Your task to perform on an android device: refresh tabs in the chrome app Image 0: 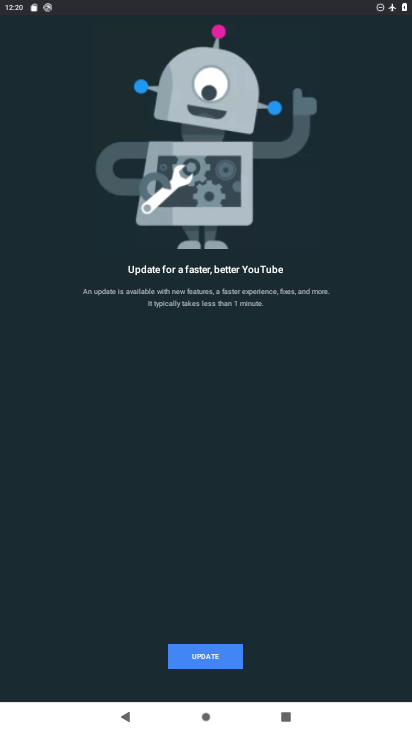
Step 0: drag from (186, 630) to (241, 206)
Your task to perform on an android device: refresh tabs in the chrome app Image 1: 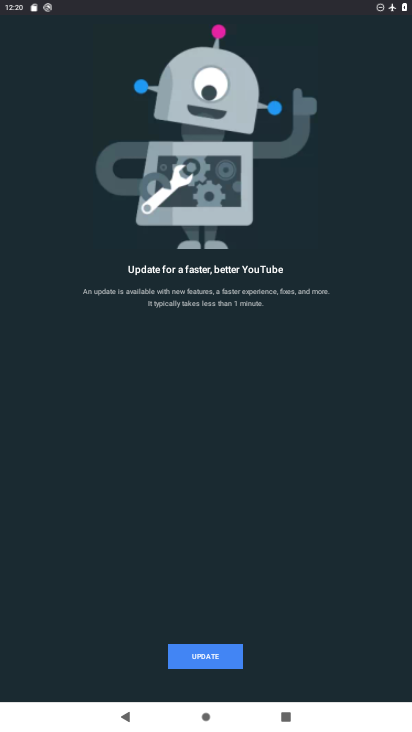
Step 1: press home button
Your task to perform on an android device: refresh tabs in the chrome app Image 2: 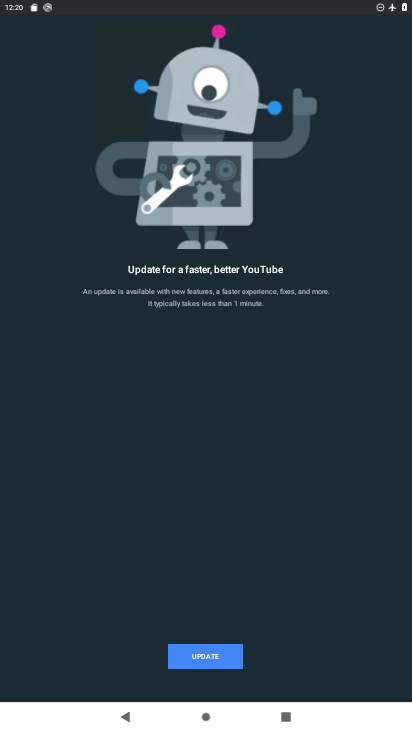
Step 2: press home button
Your task to perform on an android device: refresh tabs in the chrome app Image 3: 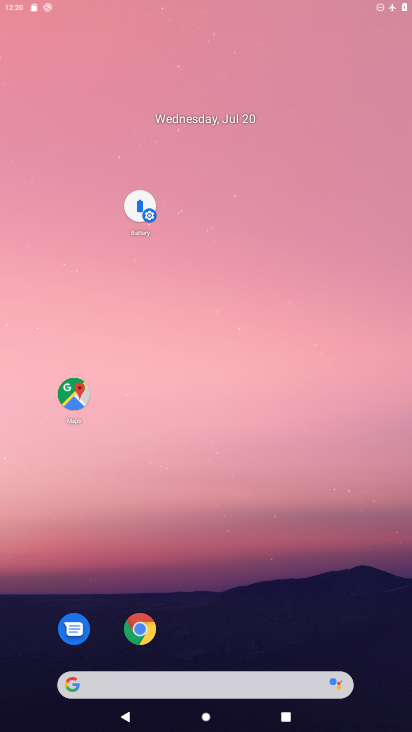
Step 3: press home button
Your task to perform on an android device: refresh tabs in the chrome app Image 4: 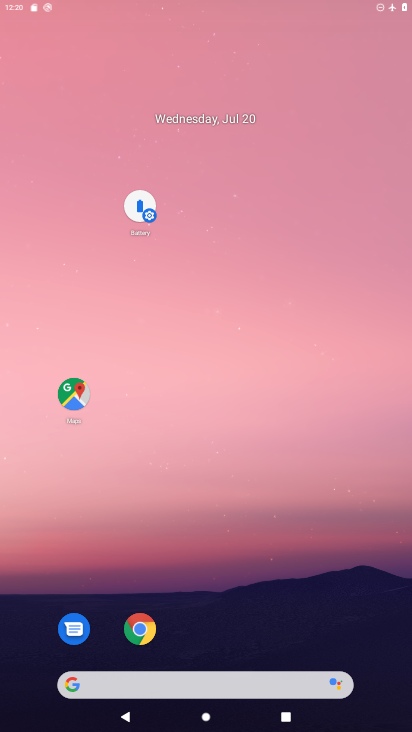
Step 4: click (236, 158)
Your task to perform on an android device: refresh tabs in the chrome app Image 5: 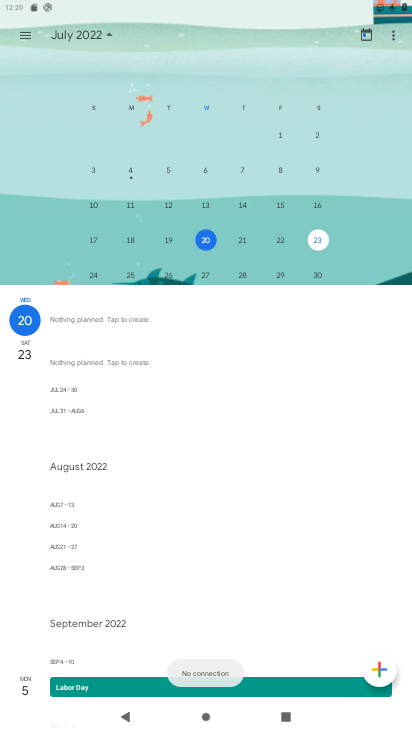
Step 5: drag from (198, 648) to (238, 270)
Your task to perform on an android device: refresh tabs in the chrome app Image 6: 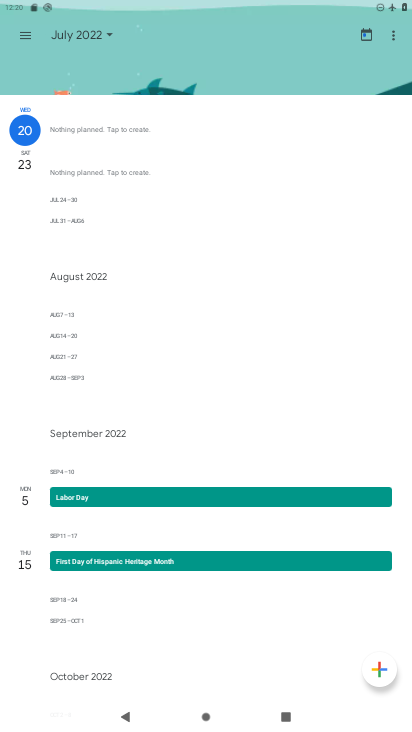
Step 6: press home button
Your task to perform on an android device: refresh tabs in the chrome app Image 7: 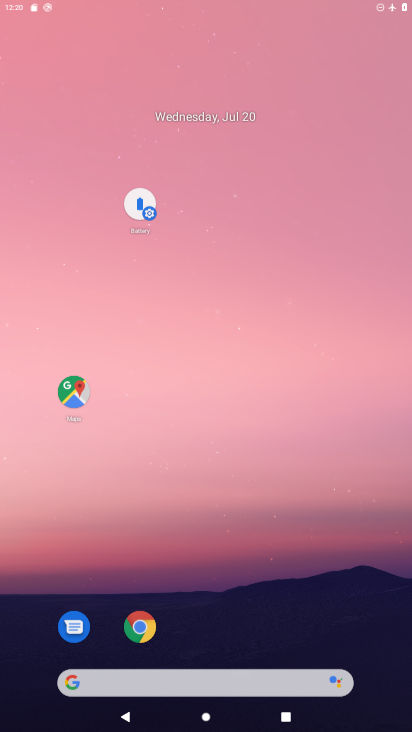
Step 7: drag from (152, 639) to (175, 269)
Your task to perform on an android device: refresh tabs in the chrome app Image 8: 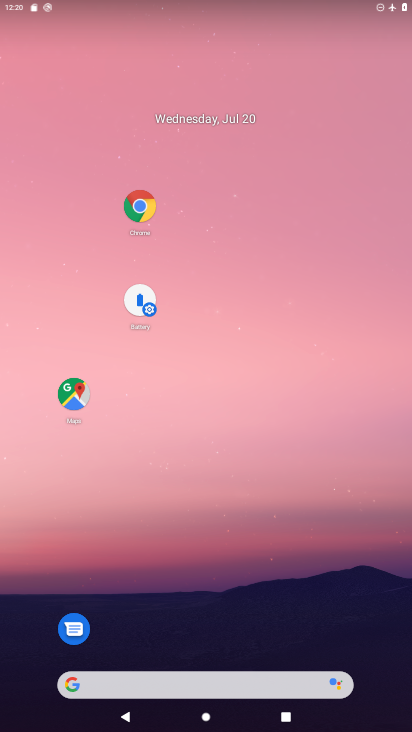
Step 8: drag from (182, 639) to (244, 112)
Your task to perform on an android device: refresh tabs in the chrome app Image 9: 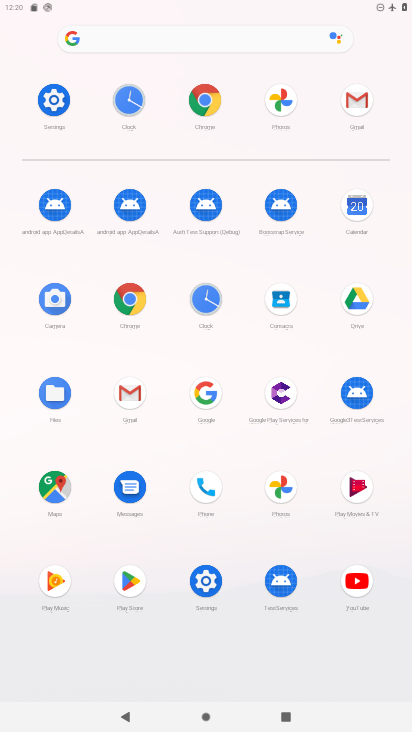
Step 9: click (124, 300)
Your task to perform on an android device: refresh tabs in the chrome app Image 10: 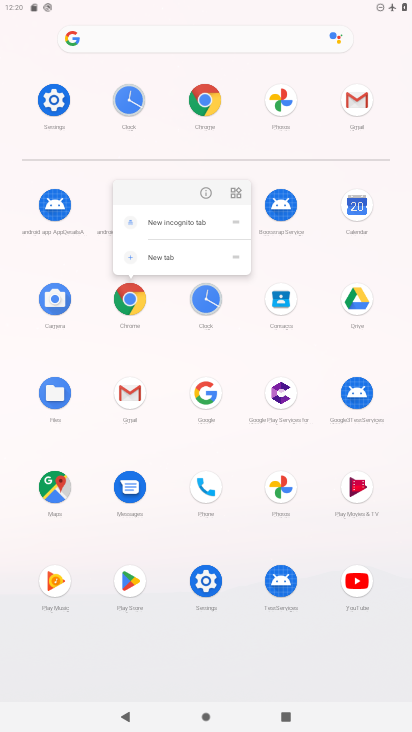
Step 10: click (204, 193)
Your task to perform on an android device: refresh tabs in the chrome app Image 11: 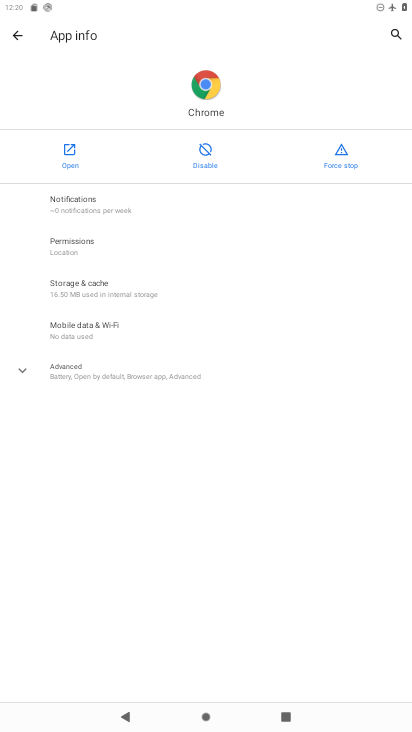
Step 11: click (30, 163)
Your task to perform on an android device: refresh tabs in the chrome app Image 12: 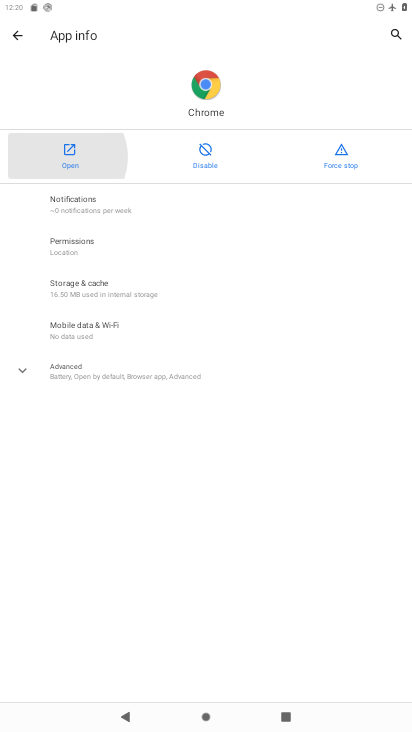
Step 12: click (75, 152)
Your task to perform on an android device: refresh tabs in the chrome app Image 13: 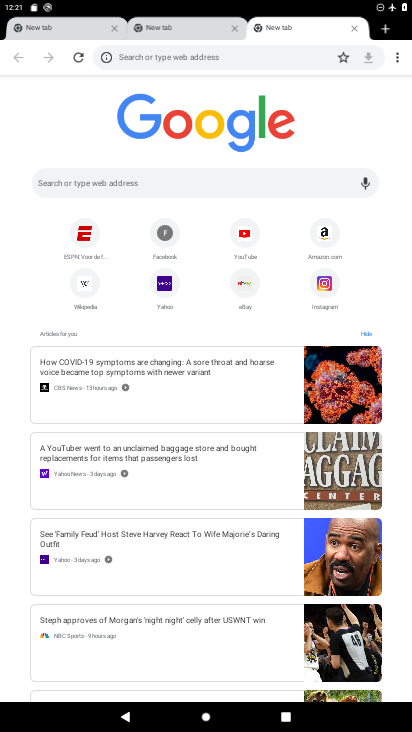
Step 13: drag from (400, 51) to (77, 119)
Your task to perform on an android device: refresh tabs in the chrome app Image 14: 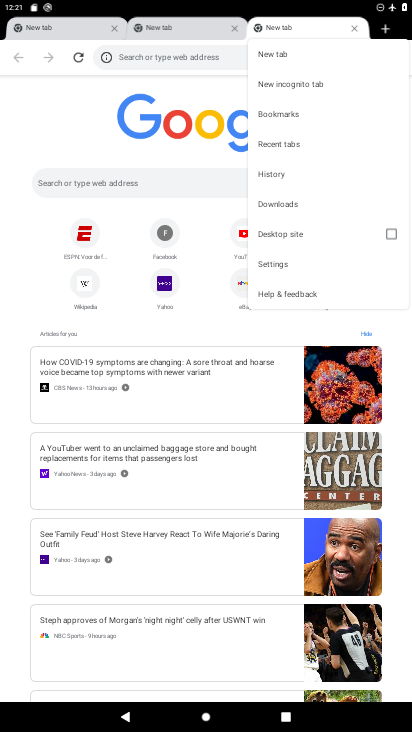
Step 14: click (77, 119)
Your task to perform on an android device: refresh tabs in the chrome app Image 15: 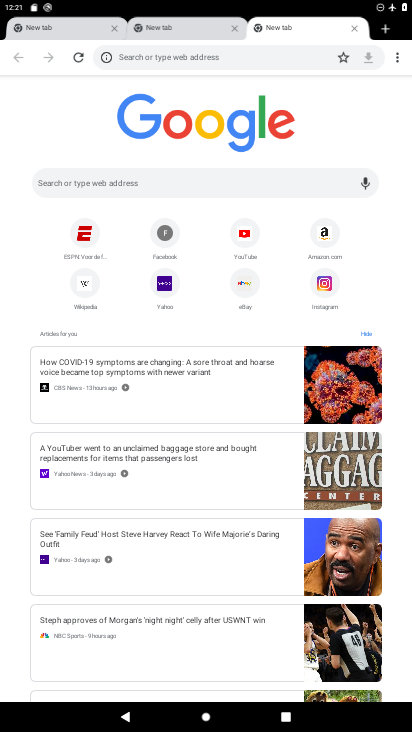
Step 15: click (75, 49)
Your task to perform on an android device: refresh tabs in the chrome app Image 16: 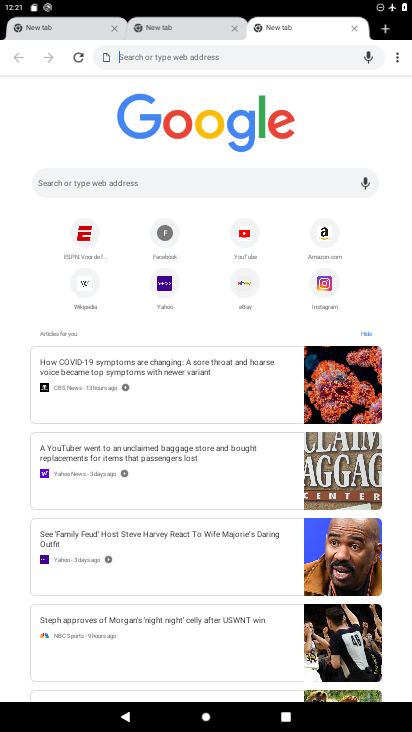
Step 16: task complete